Your task to perform on an android device: Go to Google maps Image 0: 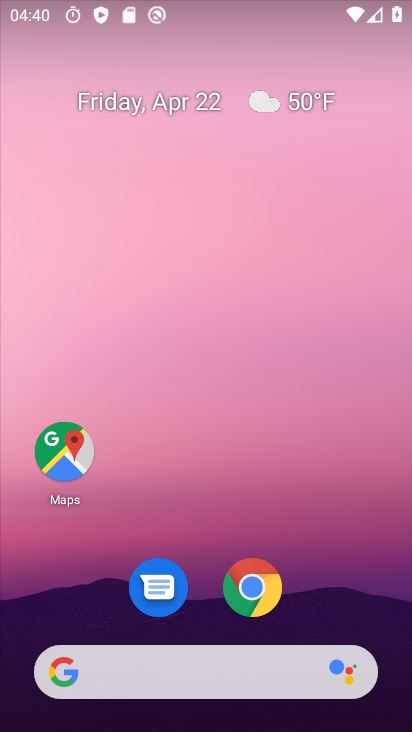
Step 0: click (62, 454)
Your task to perform on an android device: Go to Google maps Image 1: 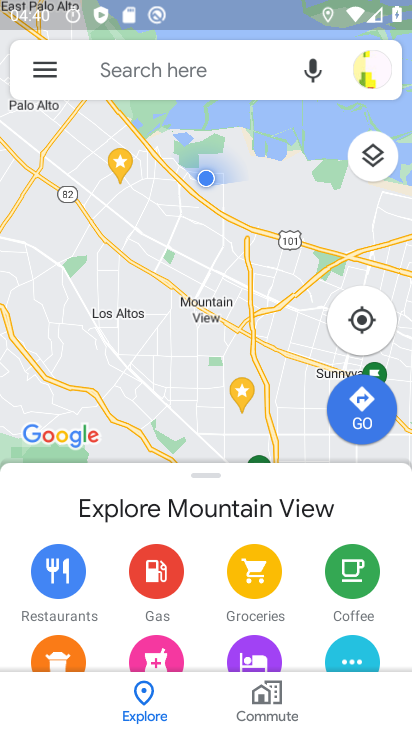
Step 1: task complete